Your task to perform on an android device: What's on my calendar today? Image 0: 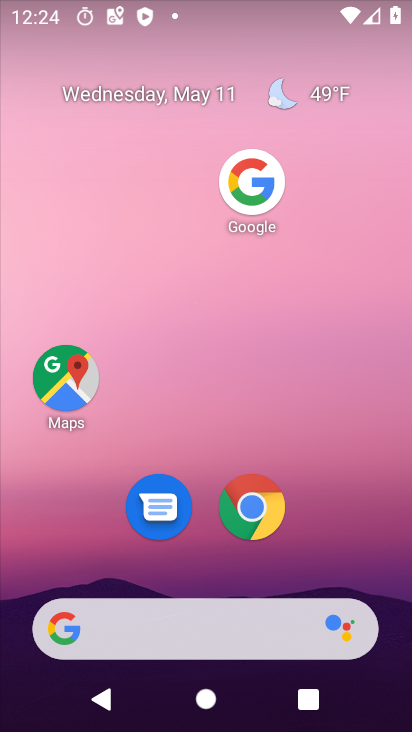
Step 0: drag from (203, 497) to (211, 91)
Your task to perform on an android device: What's on my calendar today? Image 1: 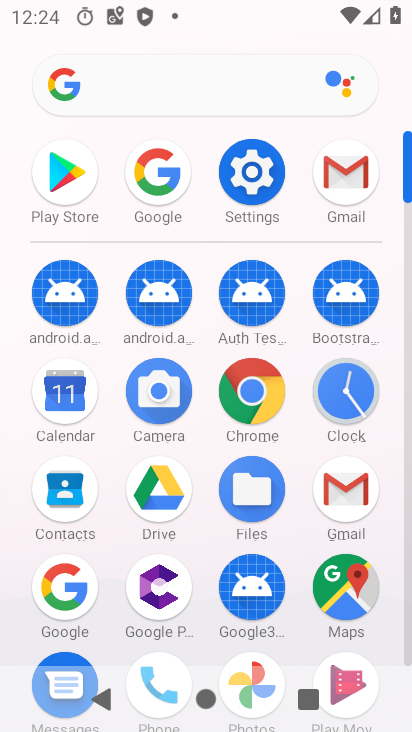
Step 1: click (69, 393)
Your task to perform on an android device: What's on my calendar today? Image 2: 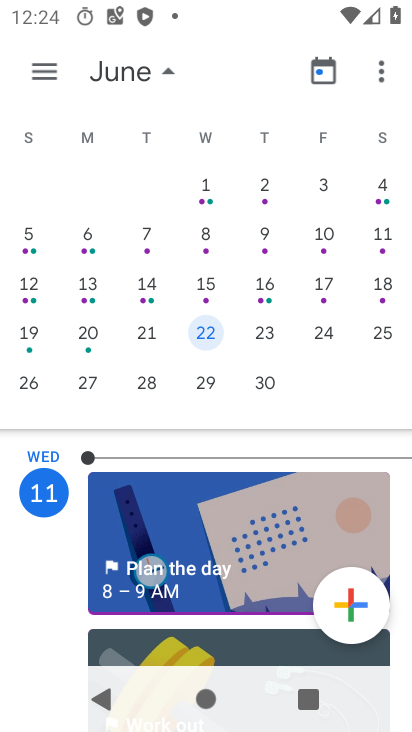
Step 2: drag from (129, 402) to (393, 351)
Your task to perform on an android device: What's on my calendar today? Image 3: 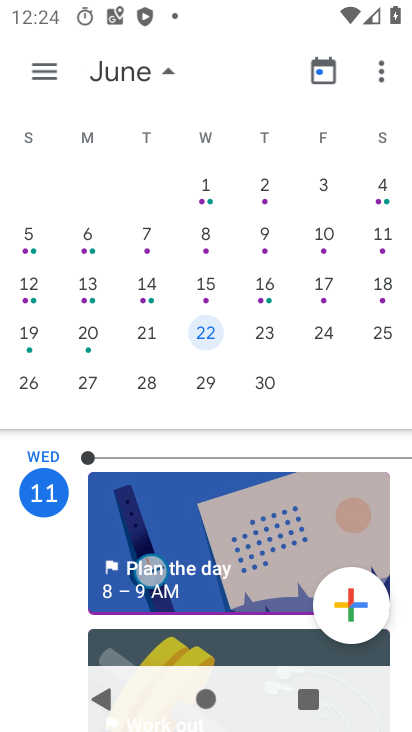
Step 3: drag from (26, 408) to (168, 414)
Your task to perform on an android device: What's on my calendar today? Image 4: 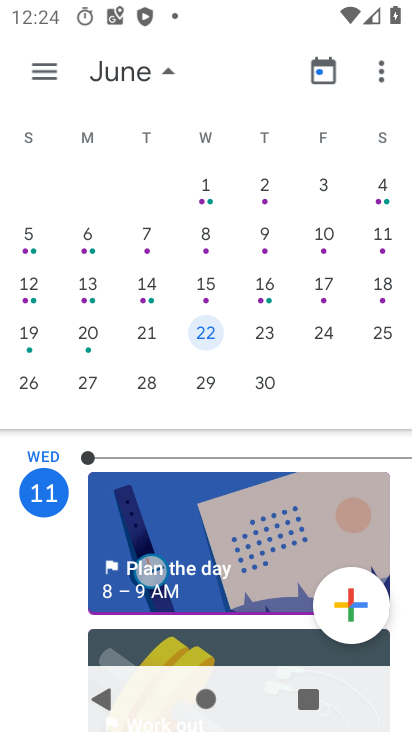
Step 4: drag from (42, 413) to (390, 419)
Your task to perform on an android device: What's on my calendar today? Image 5: 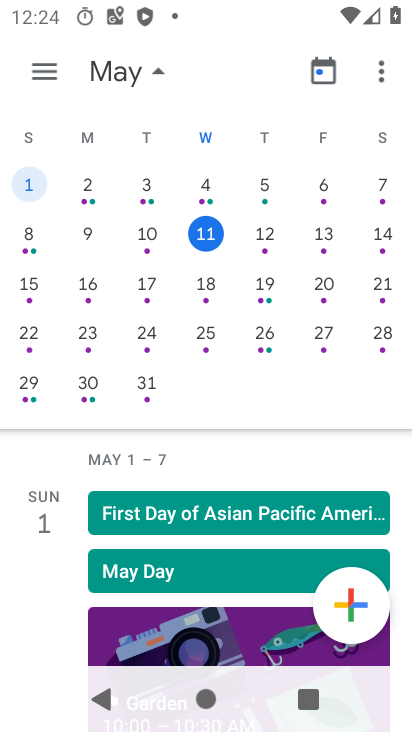
Step 5: click (211, 228)
Your task to perform on an android device: What's on my calendar today? Image 6: 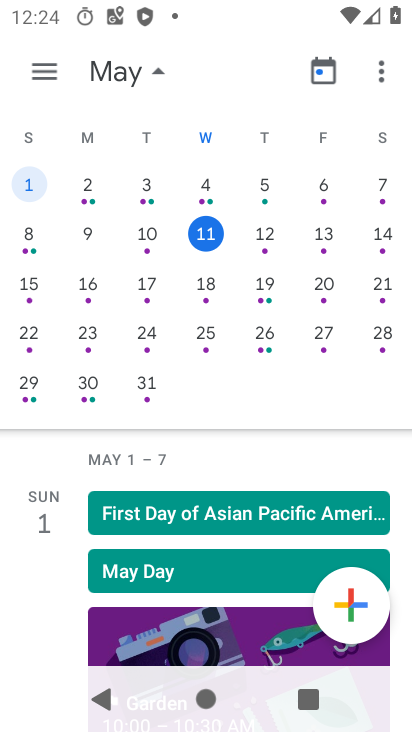
Step 6: task complete